Your task to perform on an android device: open the mobile data screen to see how much data has been used Image 0: 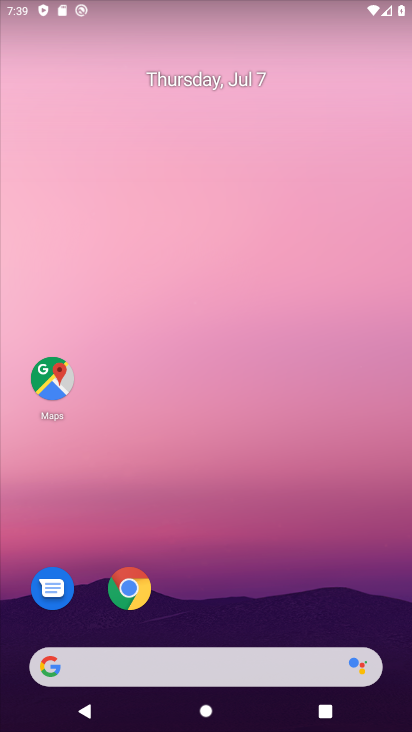
Step 0: drag from (177, 581) to (239, 229)
Your task to perform on an android device: open the mobile data screen to see how much data has been used Image 1: 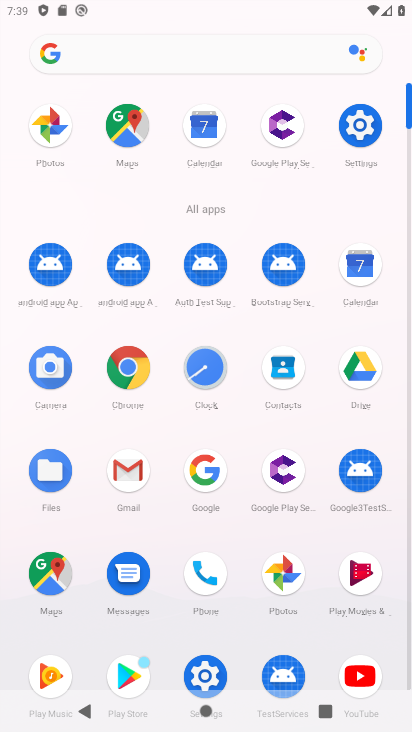
Step 1: click (210, 660)
Your task to perform on an android device: open the mobile data screen to see how much data has been used Image 2: 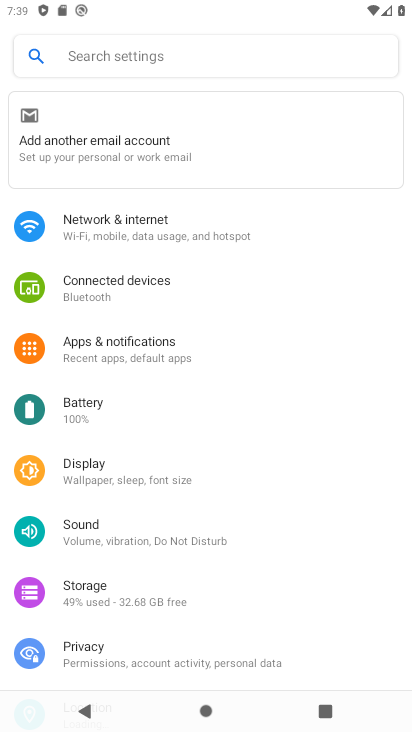
Step 2: click (182, 243)
Your task to perform on an android device: open the mobile data screen to see how much data has been used Image 3: 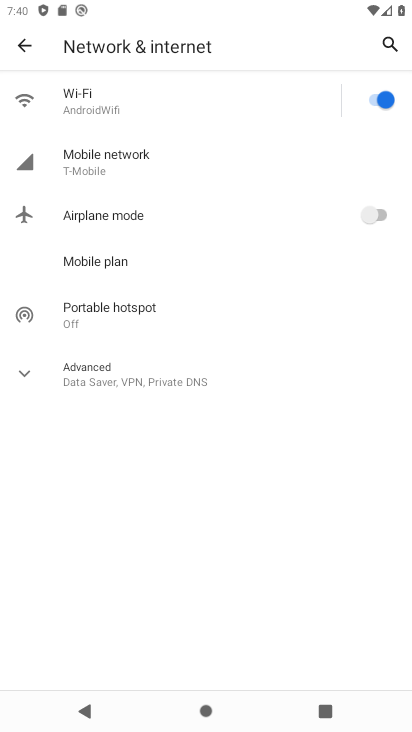
Step 3: click (146, 166)
Your task to perform on an android device: open the mobile data screen to see how much data has been used Image 4: 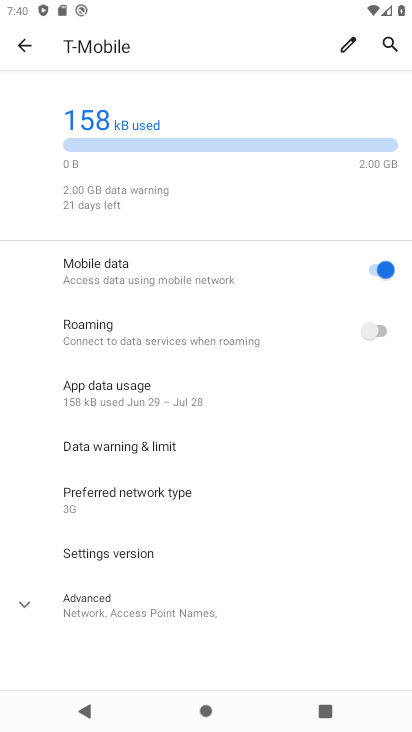
Step 4: click (187, 382)
Your task to perform on an android device: open the mobile data screen to see how much data has been used Image 5: 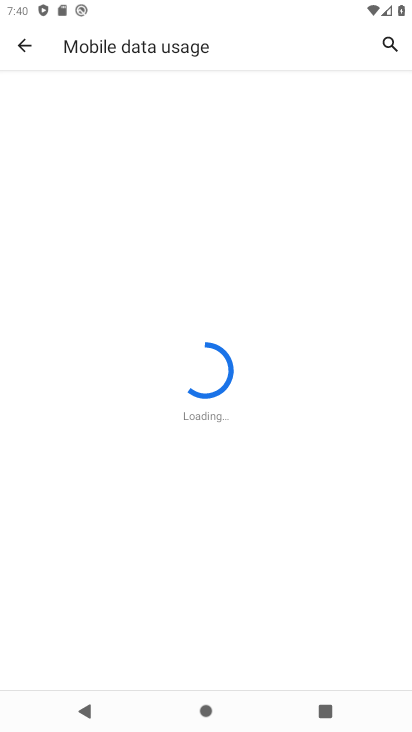
Step 5: task complete